Your task to perform on an android device: Do I have any events this weekend? Image 0: 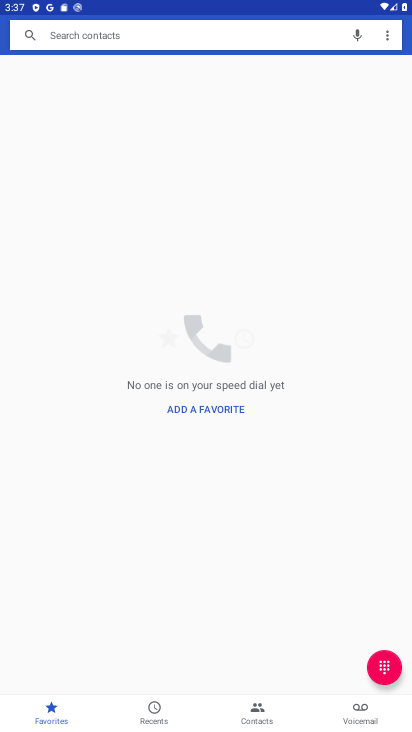
Step 0: press home button
Your task to perform on an android device: Do I have any events this weekend? Image 1: 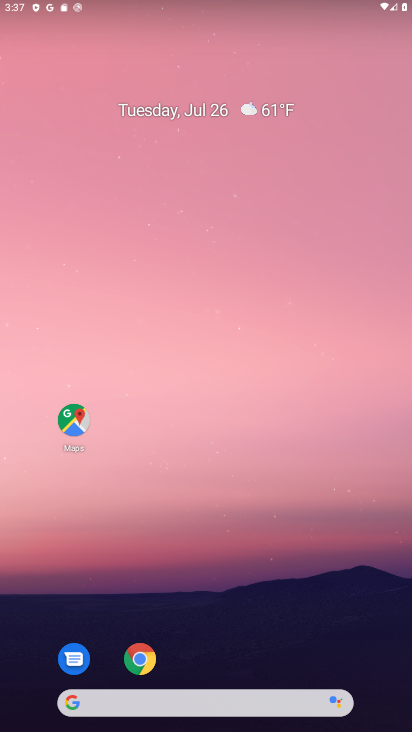
Step 1: drag from (235, 500) to (166, 26)
Your task to perform on an android device: Do I have any events this weekend? Image 2: 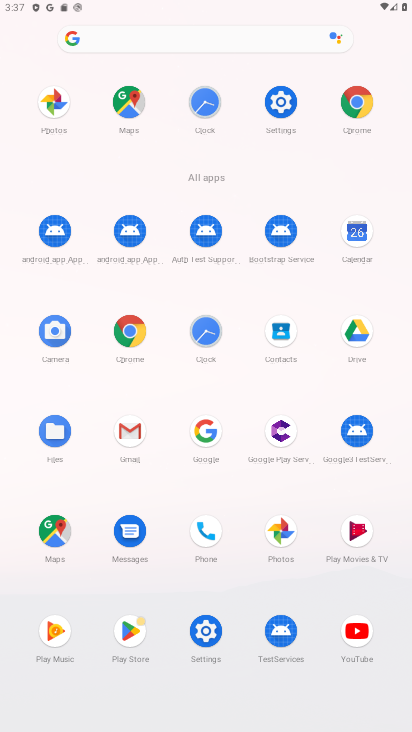
Step 2: click (354, 231)
Your task to perform on an android device: Do I have any events this weekend? Image 3: 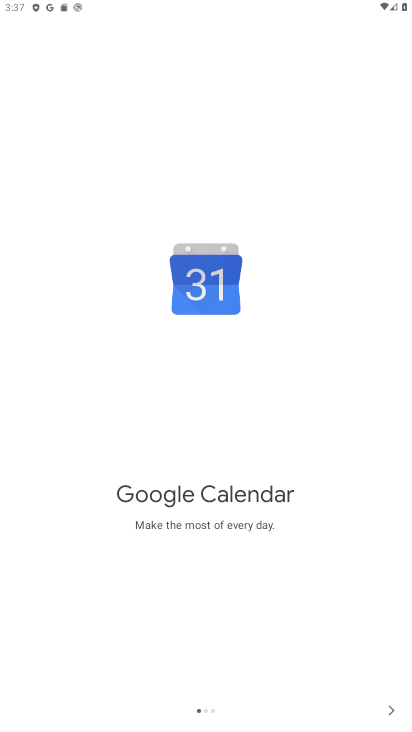
Step 3: click (392, 710)
Your task to perform on an android device: Do I have any events this weekend? Image 4: 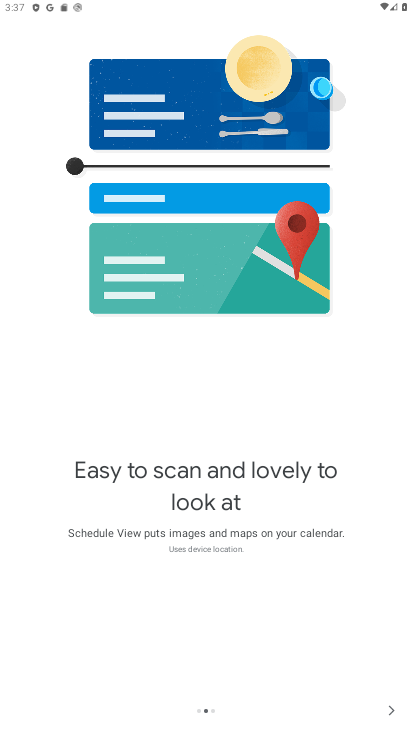
Step 4: click (393, 701)
Your task to perform on an android device: Do I have any events this weekend? Image 5: 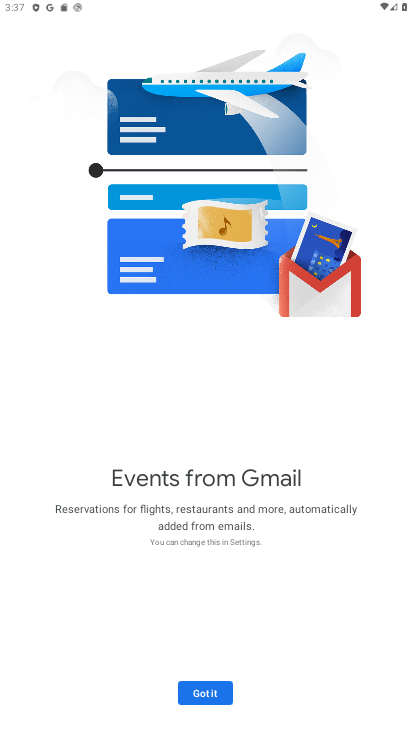
Step 5: click (226, 678)
Your task to perform on an android device: Do I have any events this weekend? Image 6: 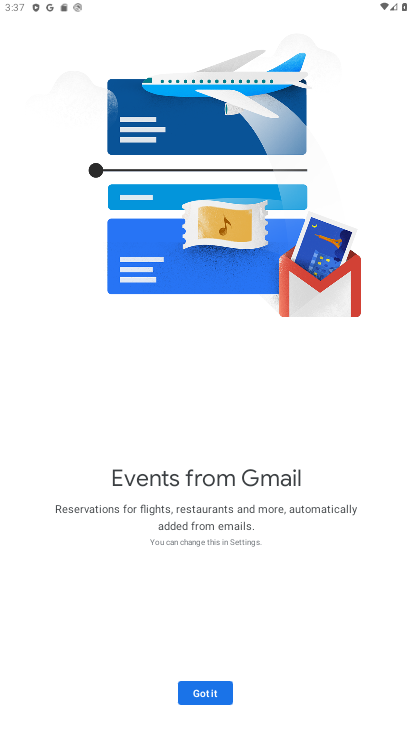
Step 6: click (219, 684)
Your task to perform on an android device: Do I have any events this weekend? Image 7: 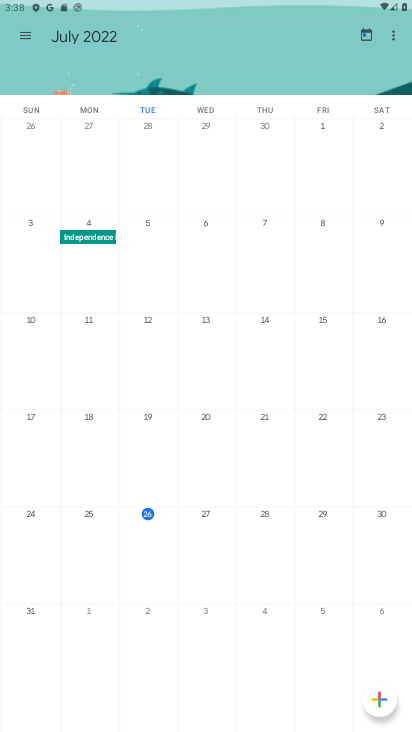
Step 7: click (23, 34)
Your task to perform on an android device: Do I have any events this weekend? Image 8: 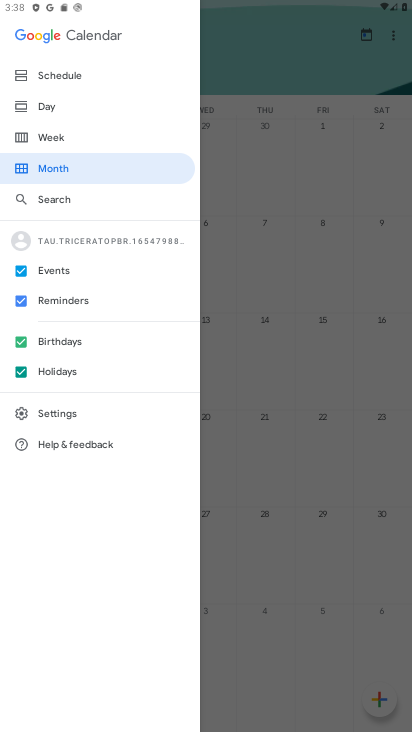
Step 8: click (45, 133)
Your task to perform on an android device: Do I have any events this weekend? Image 9: 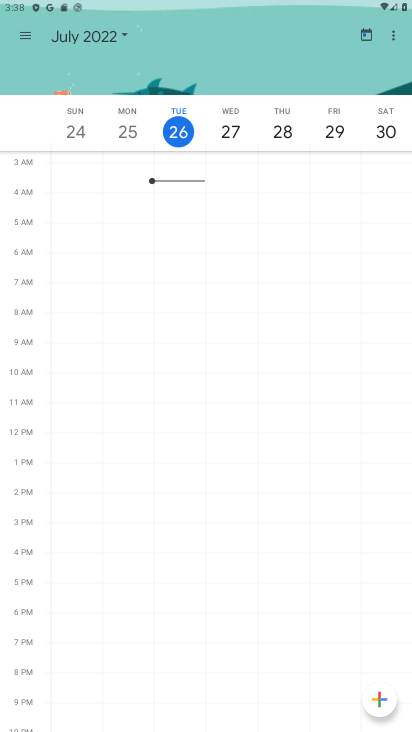
Step 9: click (375, 117)
Your task to perform on an android device: Do I have any events this weekend? Image 10: 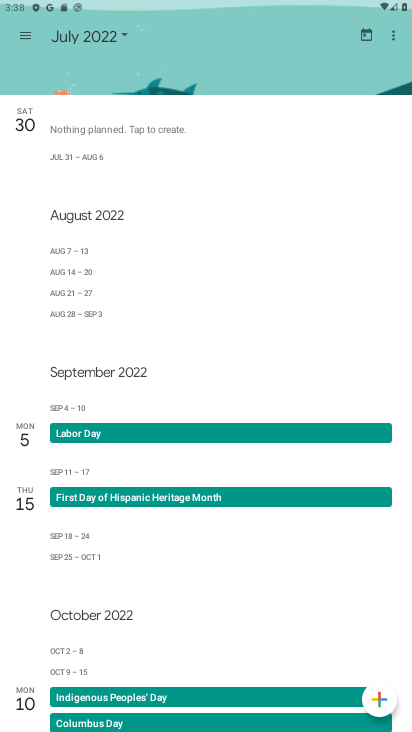
Step 10: task complete